Your task to perform on an android device: Go to settings Image 0: 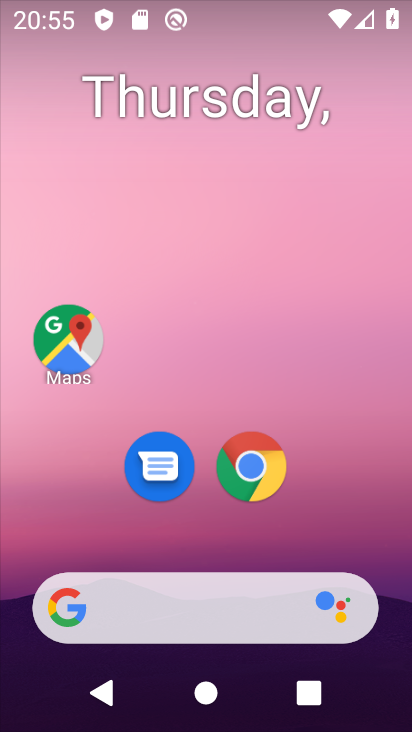
Step 0: drag from (204, 551) to (292, 5)
Your task to perform on an android device: Go to settings Image 1: 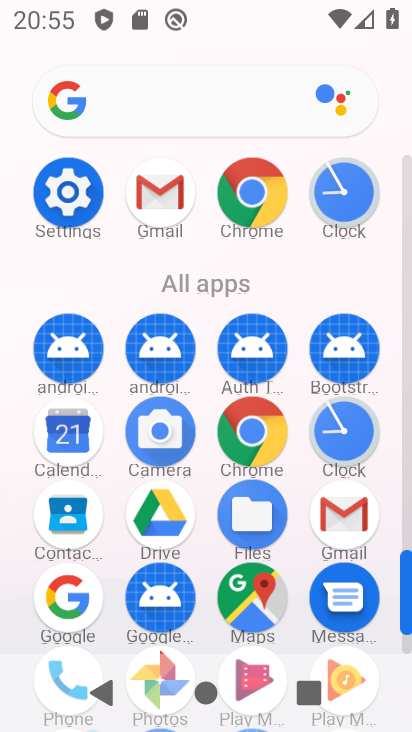
Step 1: click (71, 199)
Your task to perform on an android device: Go to settings Image 2: 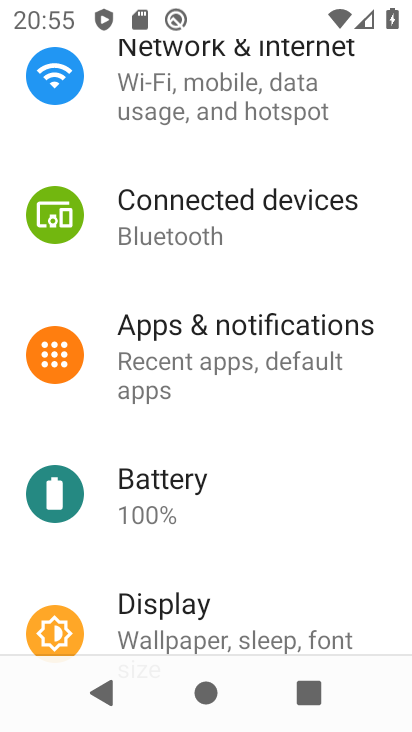
Step 2: task complete